Your task to perform on an android device: Open the map Image 0: 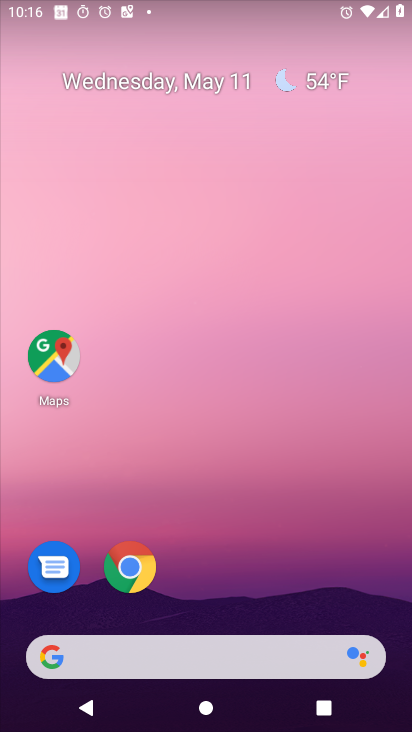
Step 0: drag from (199, 572) to (245, 122)
Your task to perform on an android device: Open the map Image 1: 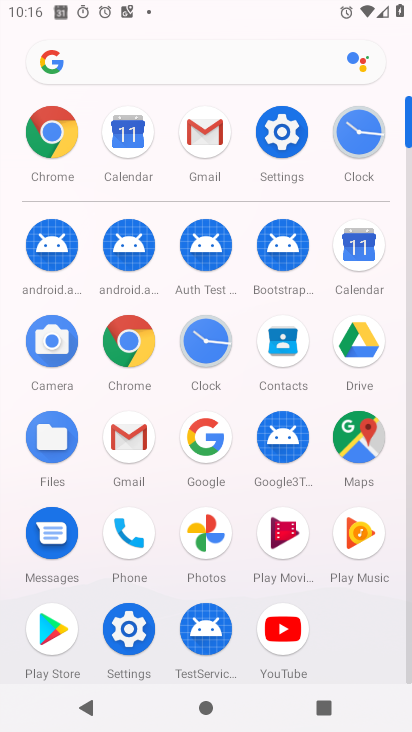
Step 1: click (354, 428)
Your task to perform on an android device: Open the map Image 2: 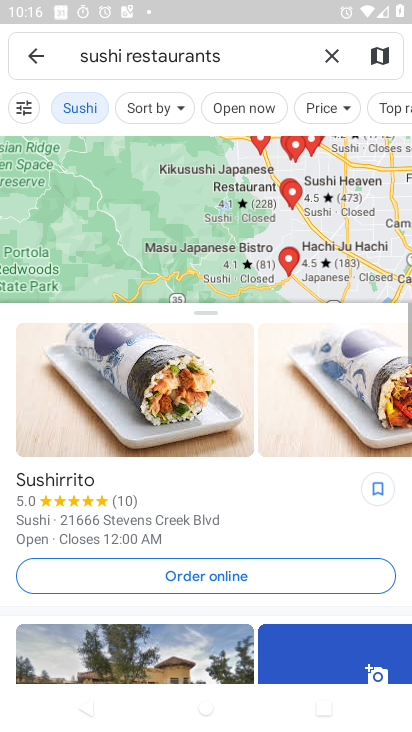
Step 2: click (36, 50)
Your task to perform on an android device: Open the map Image 3: 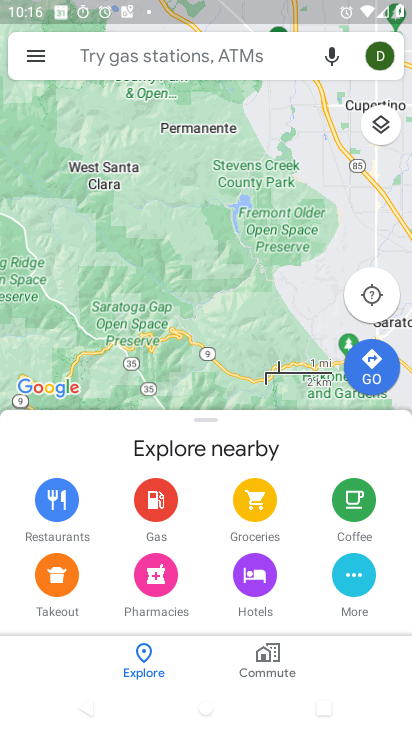
Step 3: task complete